Your task to perform on an android device: Add "usb-c" to the cart on costco.com Image 0: 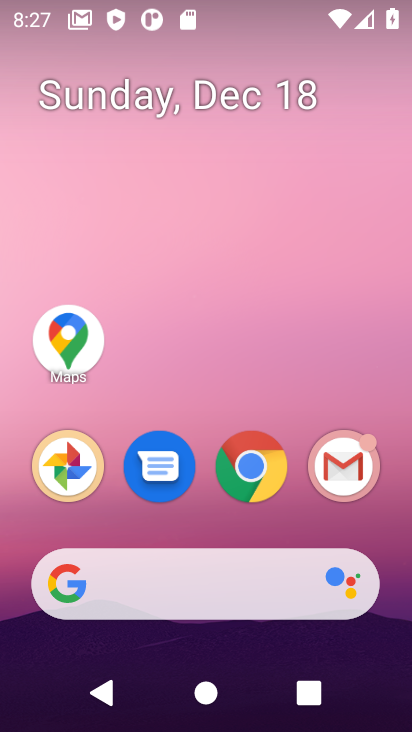
Step 0: click (268, 471)
Your task to perform on an android device: Add "usb-c" to the cart on costco.com Image 1: 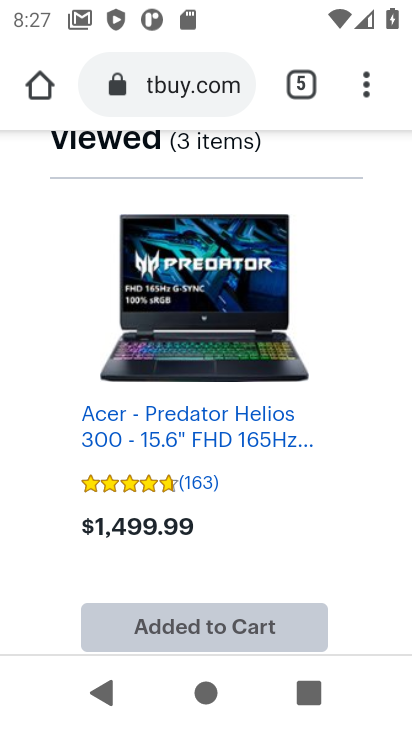
Step 1: click (189, 79)
Your task to perform on an android device: Add "usb-c" to the cart on costco.com Image 2: 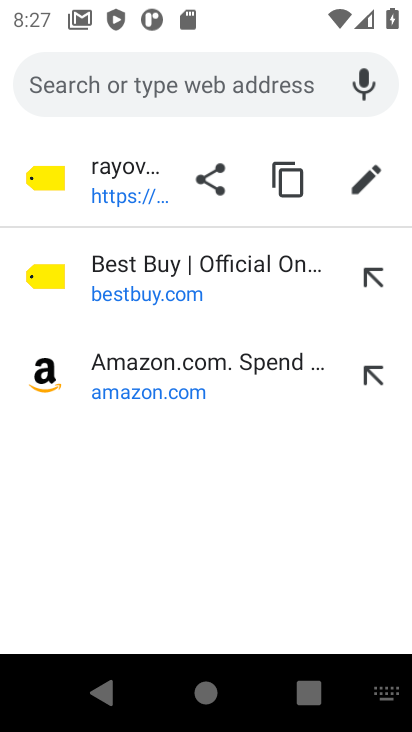
Step 2: type "COSTCO"
Your task to perform on an android device: Add "usb-c" to the cart on costco.com Image 3: 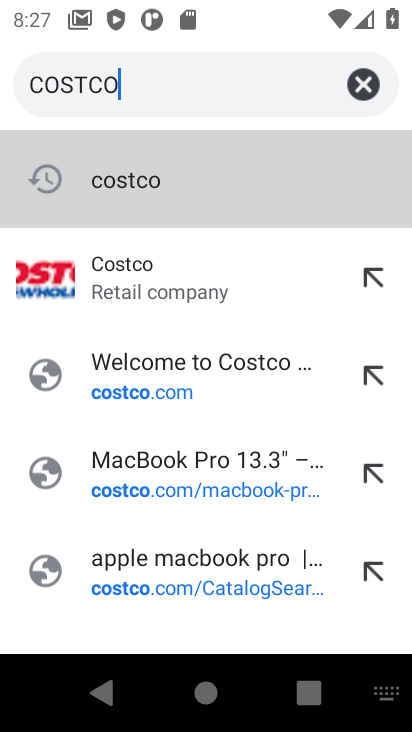
Step 3: click (195, 375)
Your task to perform on an android device: Add "usb-c" to the cart on costco.com Image 4: 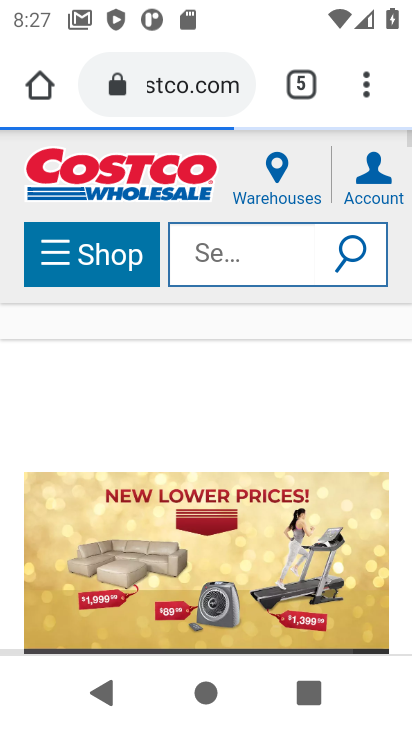
Step 4: click (263, 238)
Your task to perform on an android device: Add "usb-c" to the cart on costco.com Image 5: 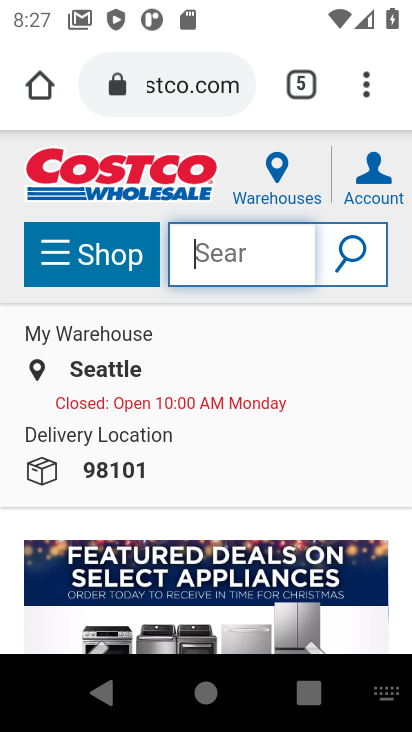
Step 5: type "USB-C"
Your task to perform on an android device: Add "usb-c" to the cart on costco.com Image 6: 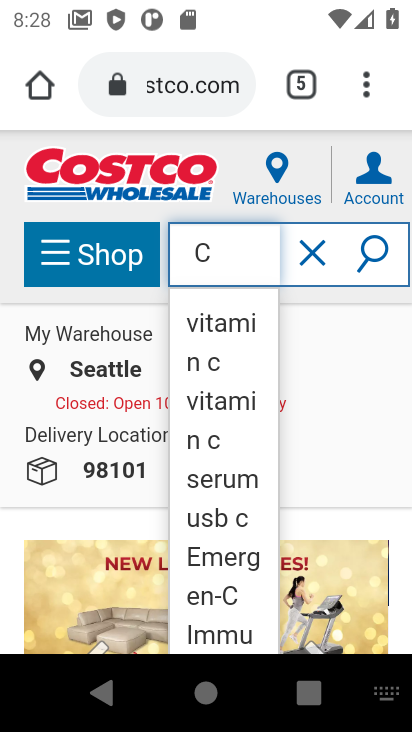
Step 6: click (232, 325)
Your task to perform on an android device: Add "usb-c" to the cart on costco.com Image 7: 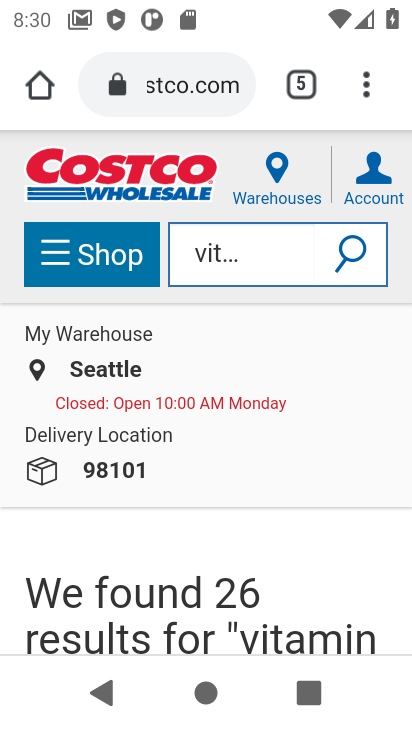
Step 7: task complete